Your task to perform on an android device: Is it going to rain today? Image 0: 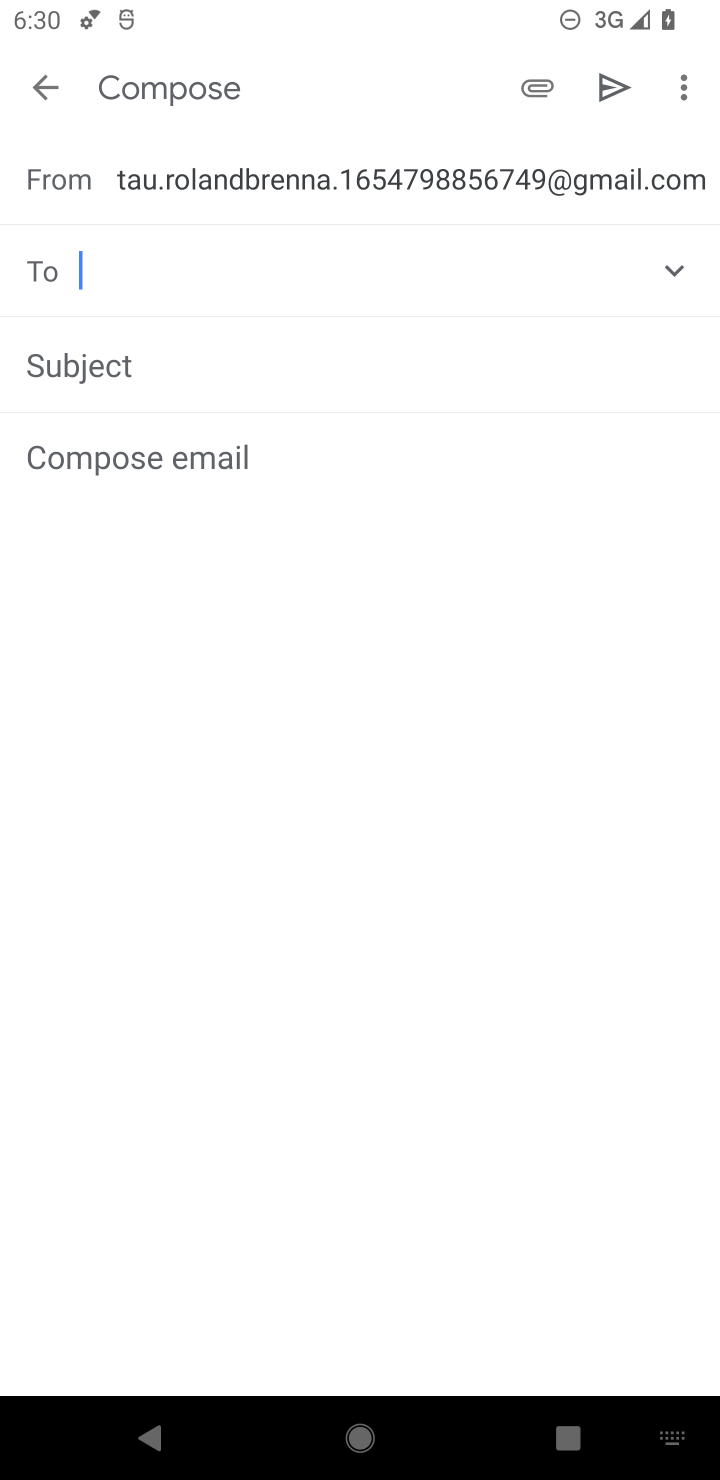
Step 0: press home button
Your task to perform on an android device: Is it going to rain today? Image 1: 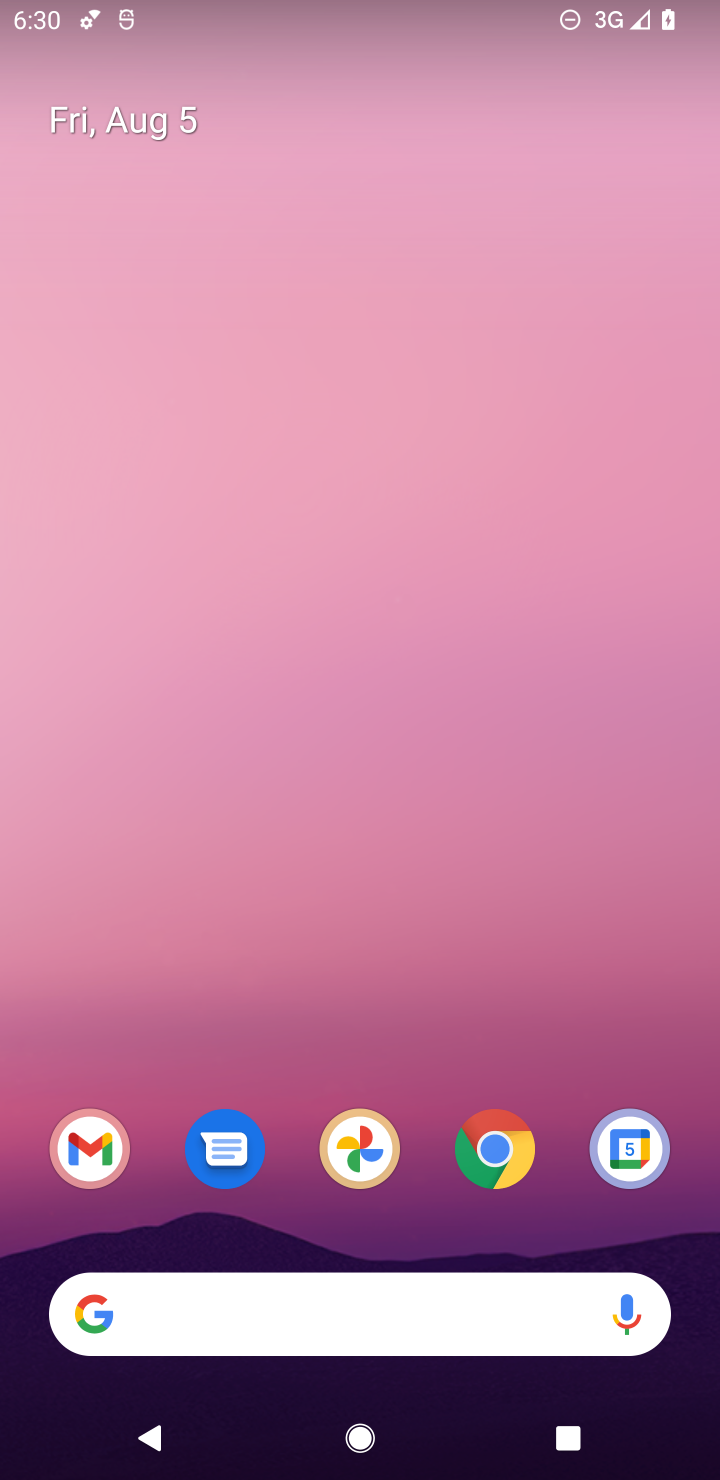
Step 1: click (333, 1293)
Your task to perform on an android device: Is it going to rain today? Image 2: 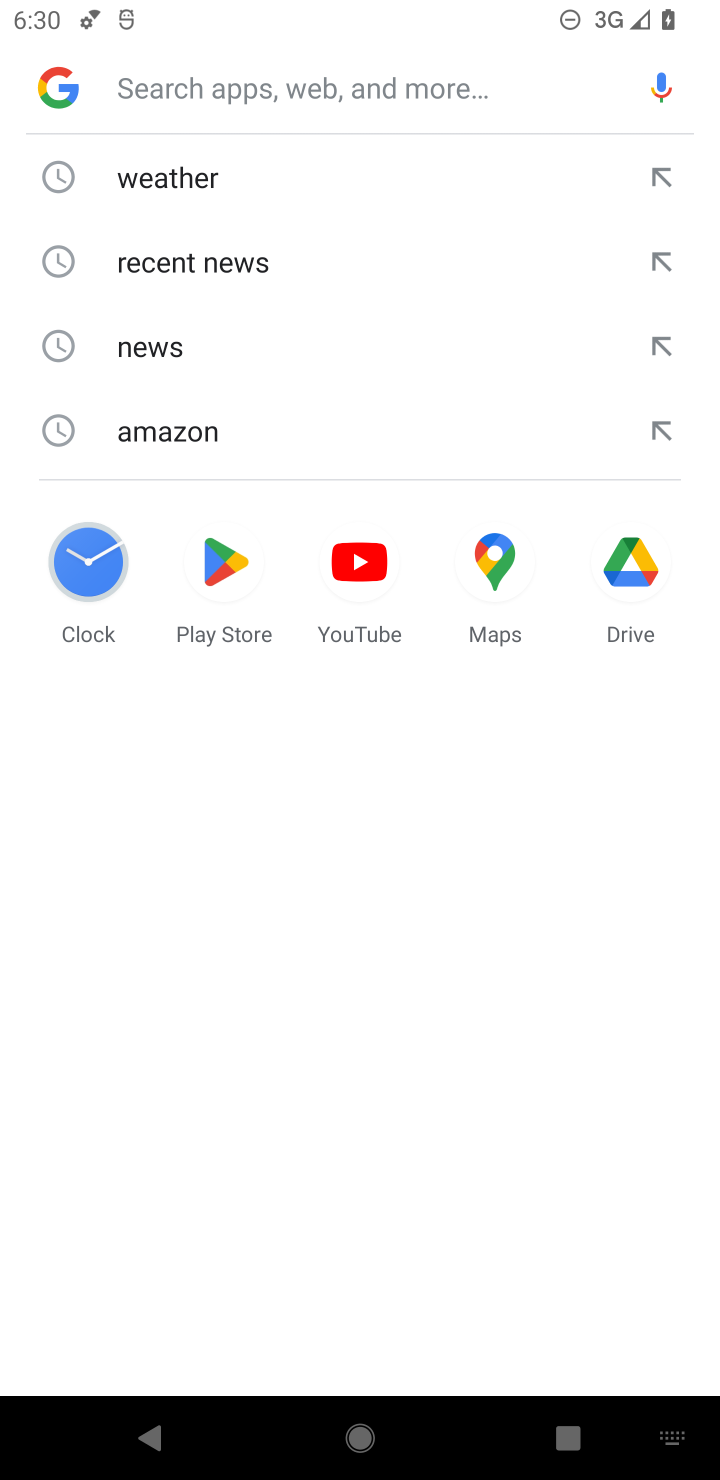
Step 2: type "is it going to rain today"
Your task to perform on an android device: Is it going to rain today? Image 3: 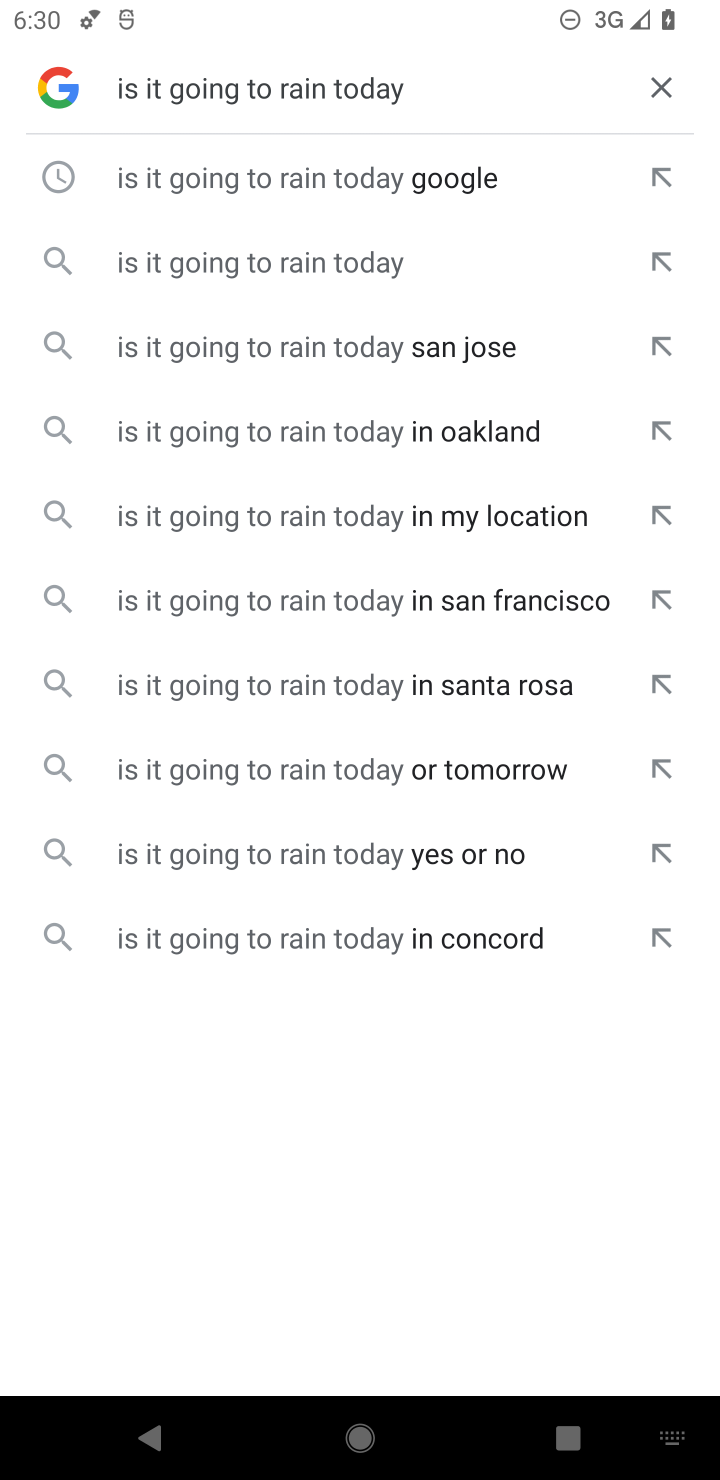
Step 3: click (392, 184)
Your task to perform on an android device: Is it going to rain today? Image 4: 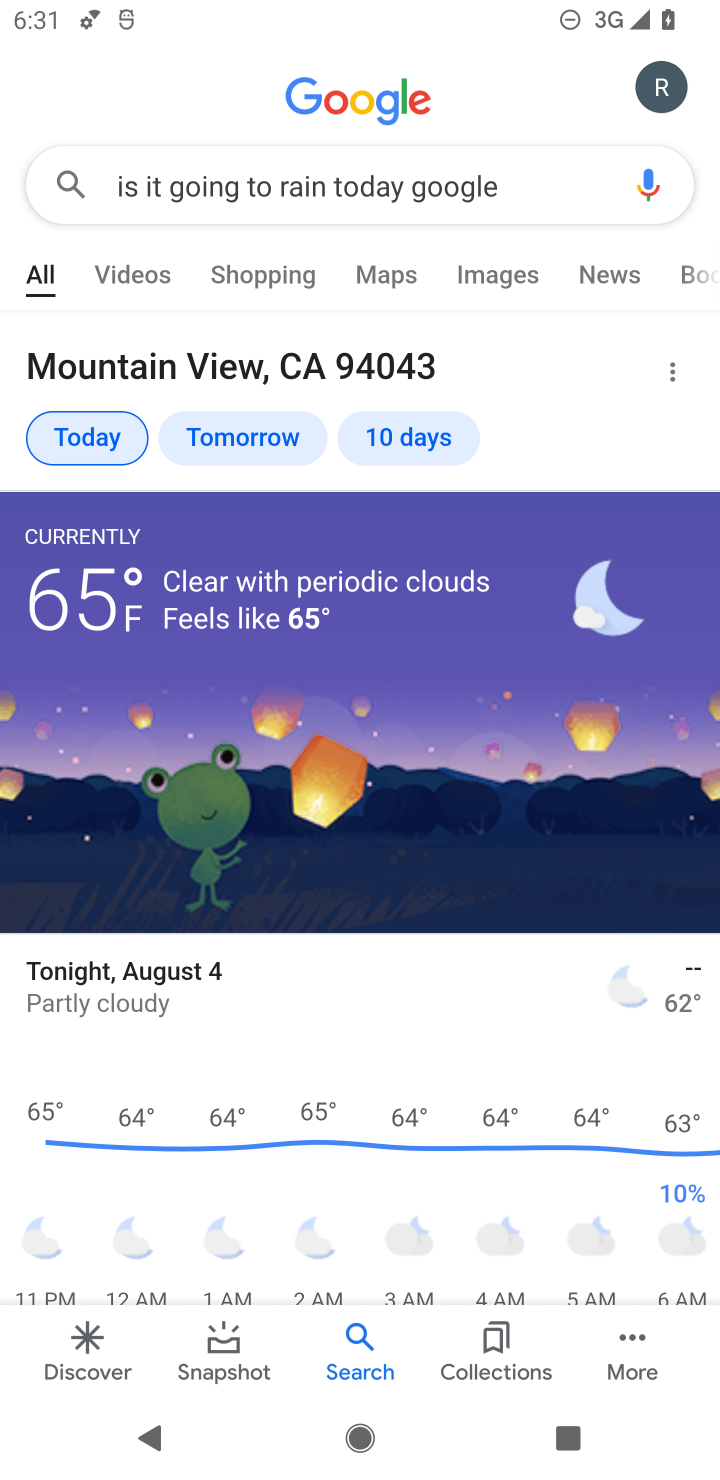
Step 4: task complete